Your task to perform on an android device: choose inbox layout in the gmail app Image 0: 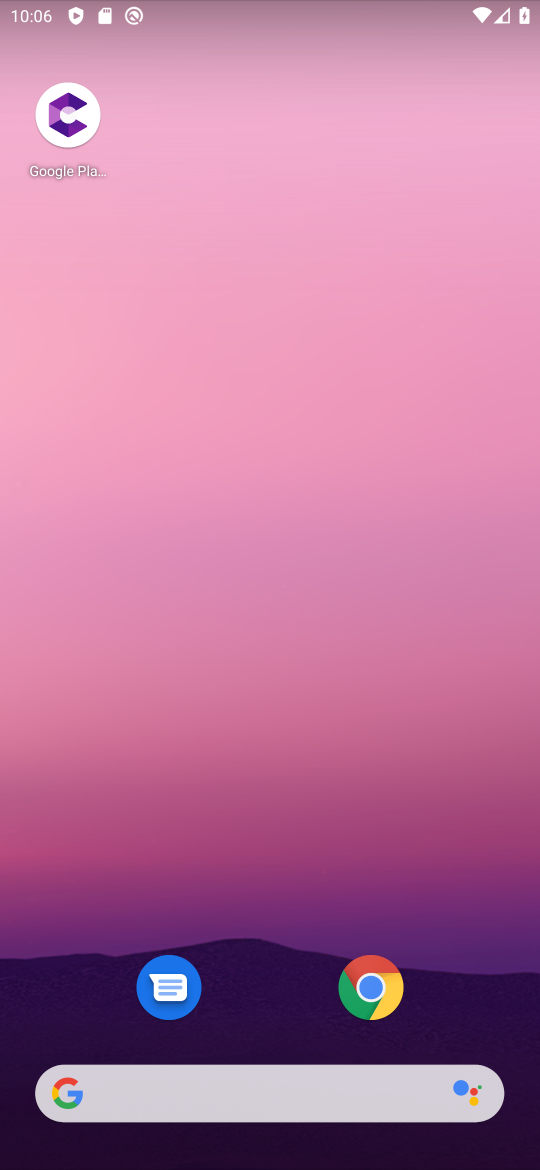
Step 0: drag from (258, 1037) to (425, 270)
Your task to perform on an android device: choose inbox layout in the gmail app Image 1: 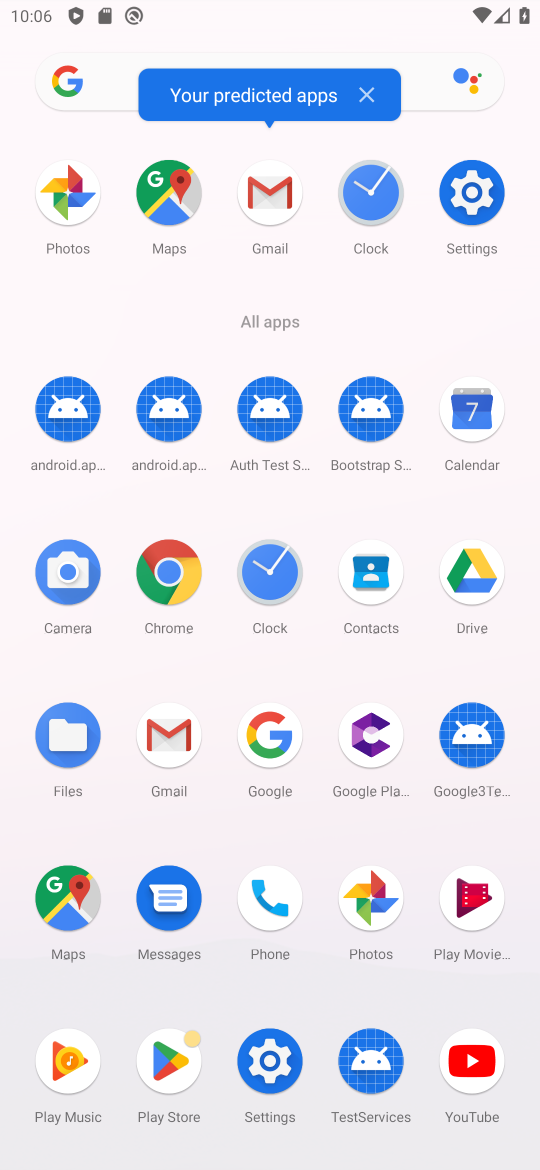
Step 1: click (278, 209)
Your task to perform on an android device: choose inbox layout in the gmail app Image 2: 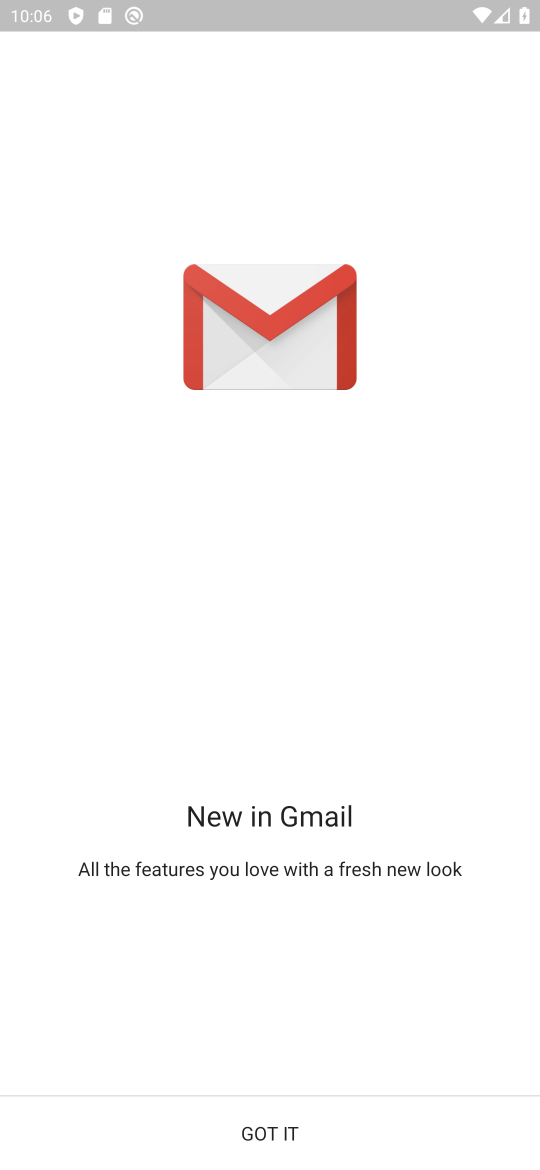
Step 2: click (239, 1153)
Your task to perform on an android device: choose inbox layout in the gmail app Image 3: 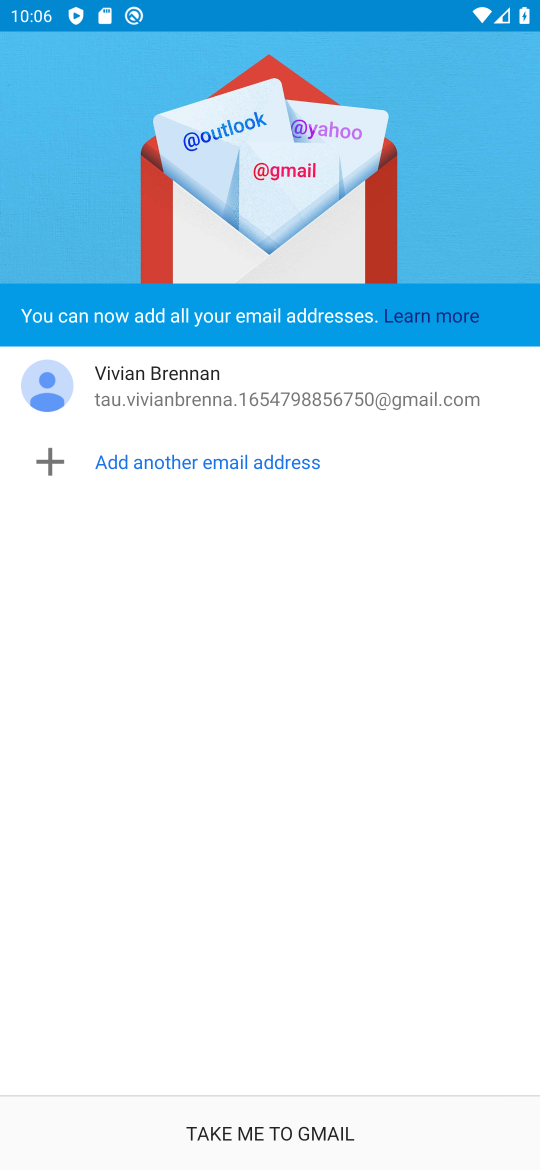
Step 3: click (265, 1140)
Your task to perform on an android device: choose inbox layout in the gmail app Image 4: 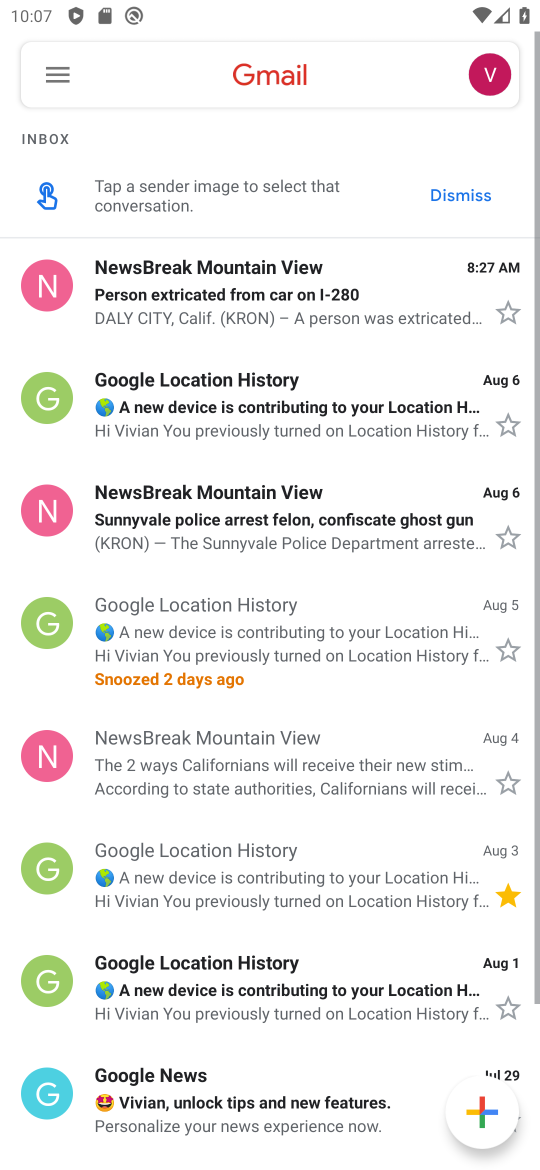
Step 4: click (51, 76)
Your task to perform on an android device: choose inbox layout in the gmail app Image 5: 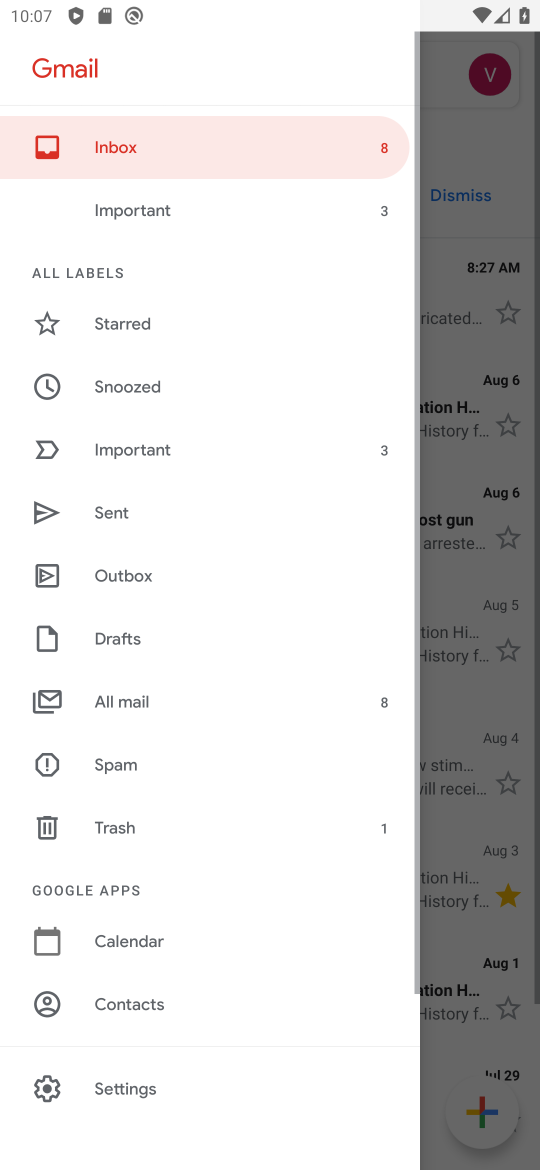
Step 5: click (101, 1102)
Your task to perform on an android device: choose inbox layout in the gmail app Image 6: 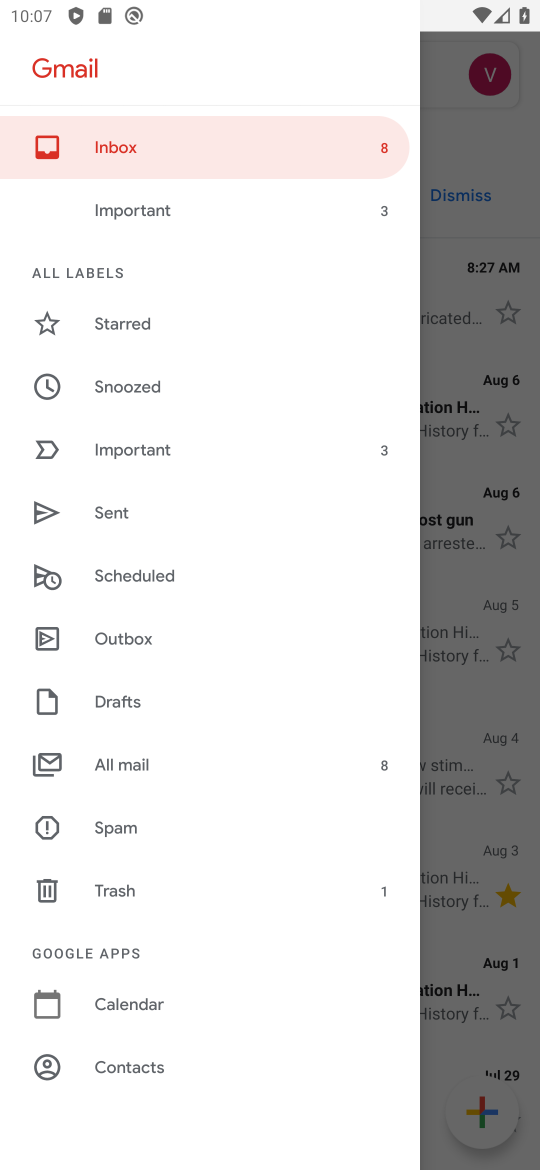
Step 6: drag from (189, 436) to (246, 204)
Your task to perform on an android device: choose inbox layout in the gmail app Image 7: 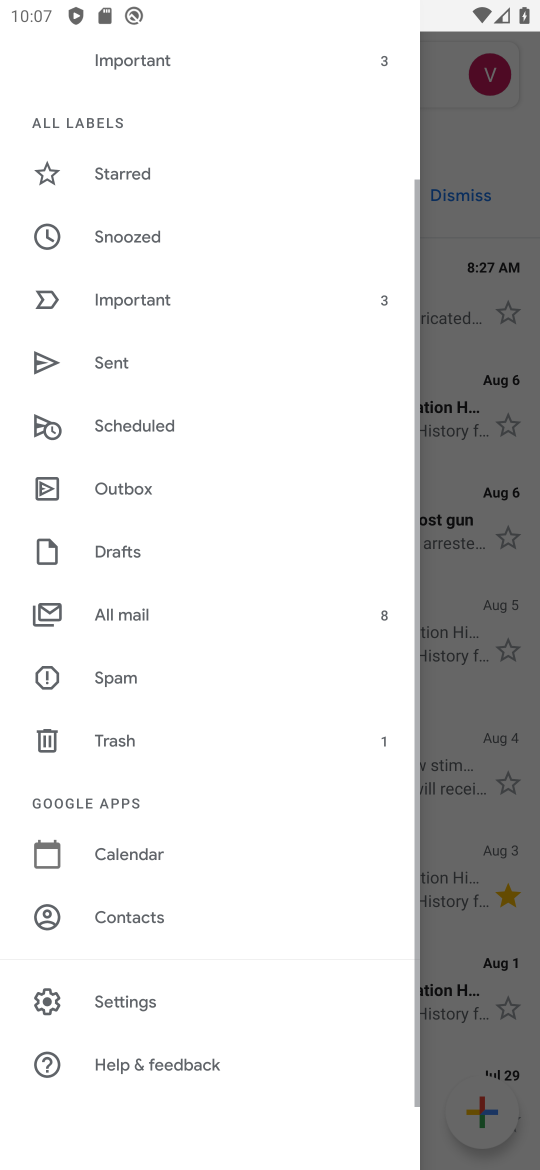
Step 7: click (136, 998)
Your task to perform on an android device: choose inbox layout in the gmail app Image 8: 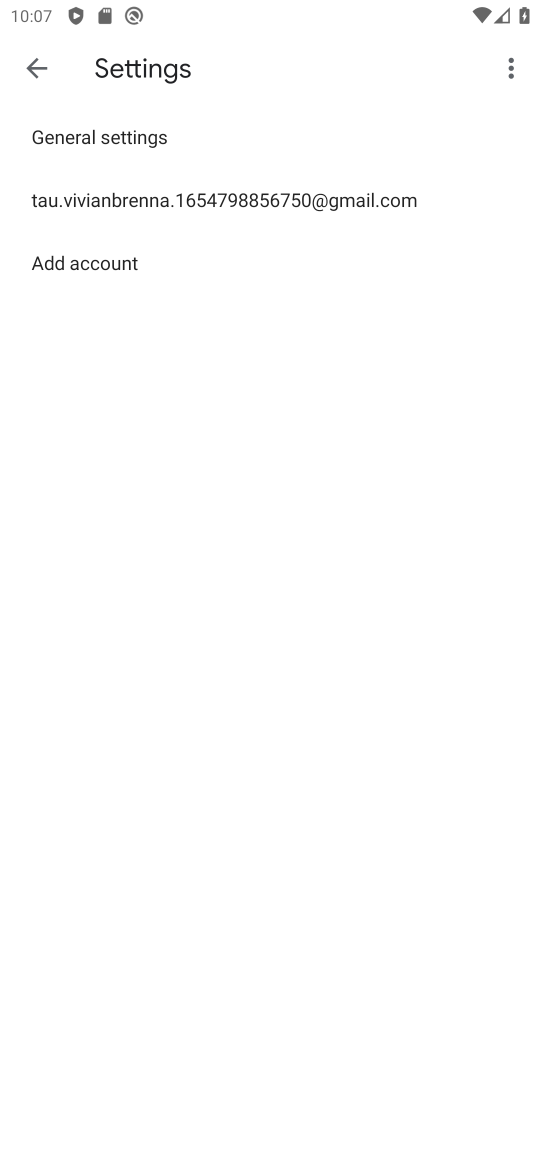
Step 8: click (154, 199)
Your task to perform on an android device: choose inbox layout in the gmail app Image 9: 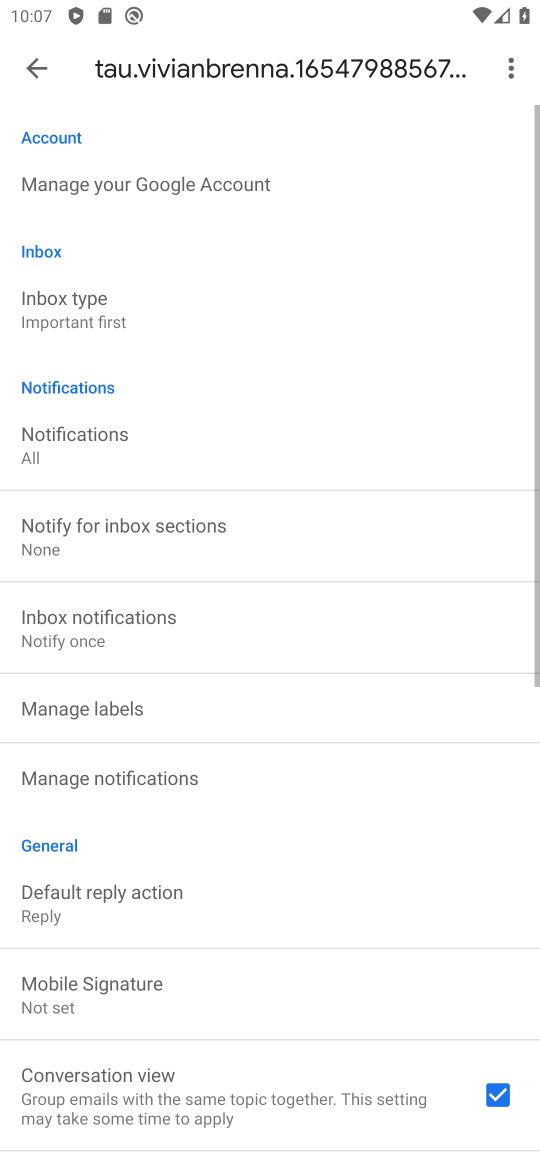
Step 9: click (37, 323)
Your task to perform on an android device: choose inbox layout in the gmail app Image 10: 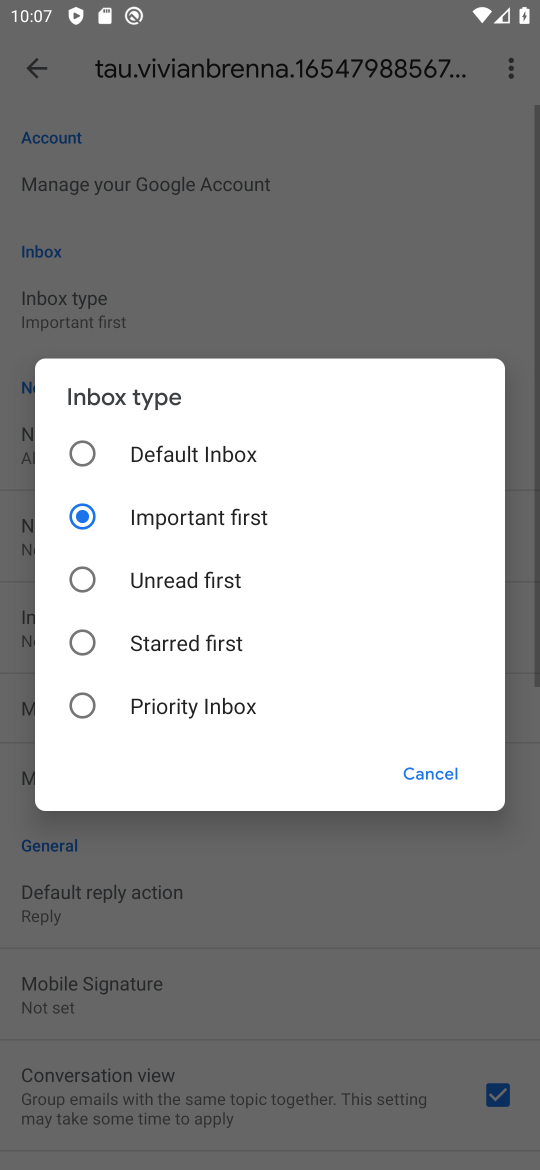
Step 10: click (97, 575)
Your task to perform on an android device: choose inbox layout in the gmail app Image 11: 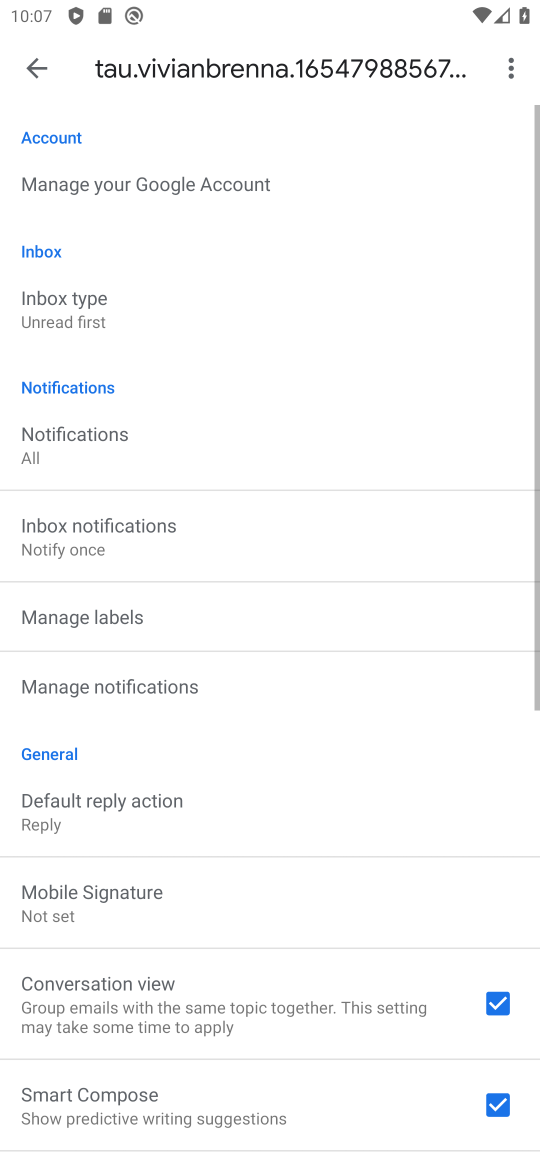
Step 11: task complete